Your task to perform on an android device: Open calendar and show me the second week of next month Image 0: 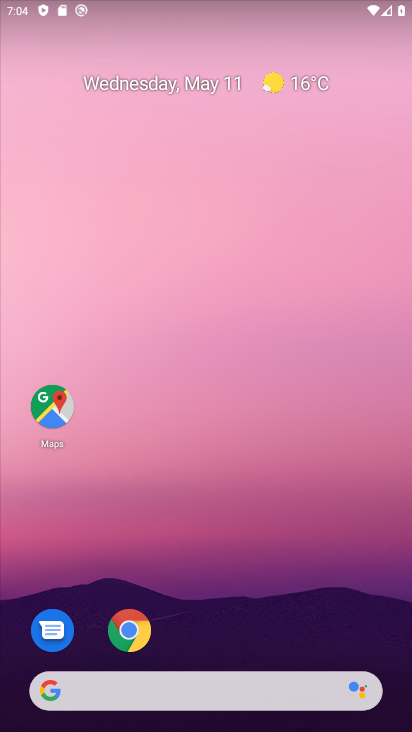
Step 0: drag from (287, 601) to (191, 1)
Your task to perform on an android device: Open calendar and show me the second week of next month Image 1: 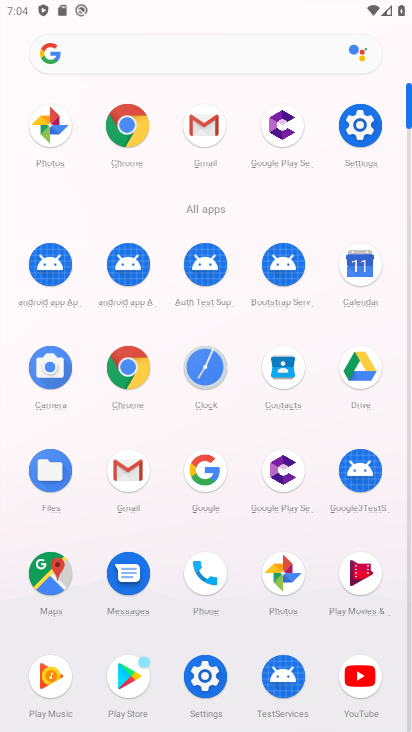
Step 1: click (367, 268)
Your task to perform on an android device: Open calendar and show me the second week of next month Image 2: 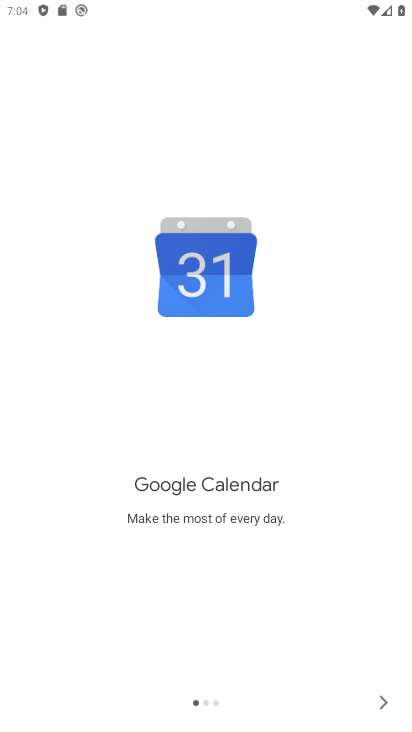
Step 2: click (388, 699)
Your task to perform on an android device: Open calendar and show me the second week of next month Image 3: 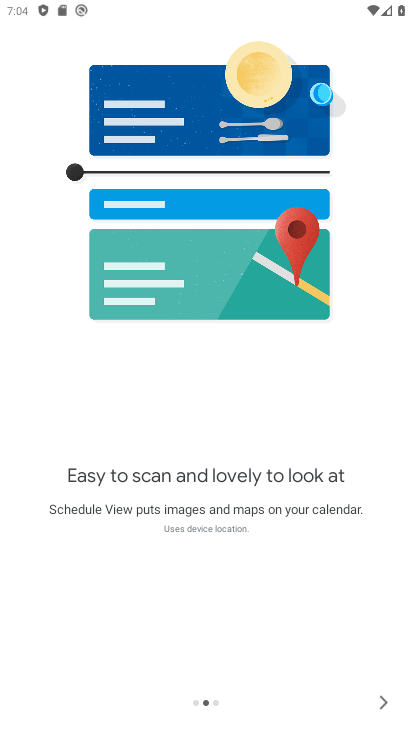
Step 3: click (388, 699)
Your task to perform on an android device: Open calendar and show me the second week of next month Image 4: 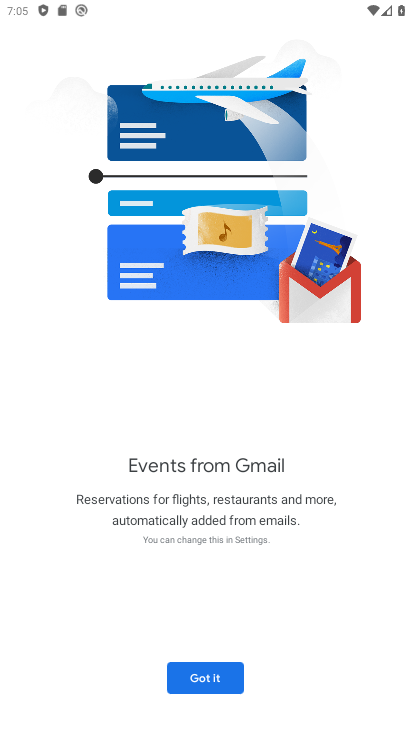
Step 4: click (180, 672)
Your task to perform on an android device: Open calendar and show me the second week of next month Image 5: 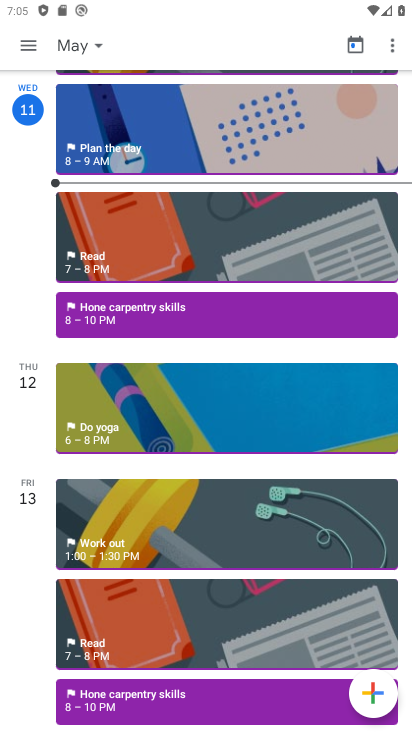
Step 5: click (64, 48)
Your task to perform on an android device: Open calendar and show me the second week of next month Image 6: 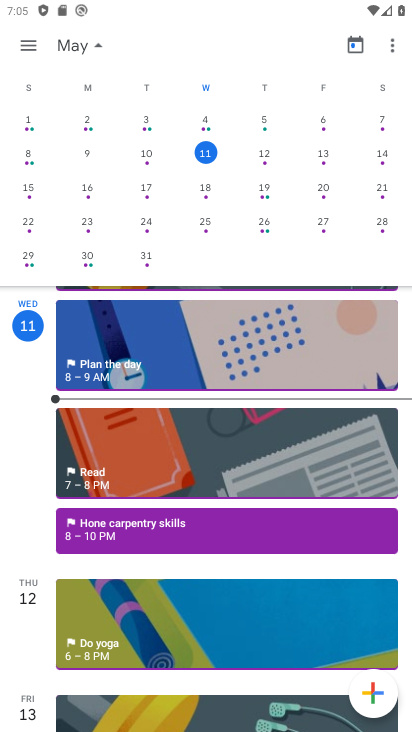
Step 6: drag from (329, 200) to (6, 163)
Your task to perform on an android device: Open calendar and show me the second week of next month Image 7: 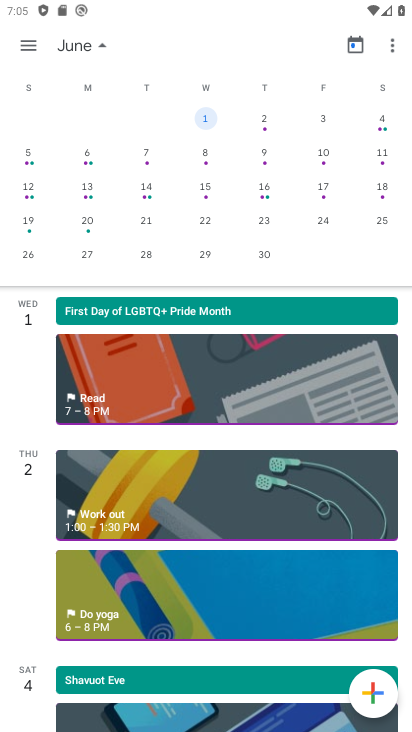
Step 7: click (150, 192)
Your task to perform on an android device: Open calendar and show me the second week of next month Image 8: 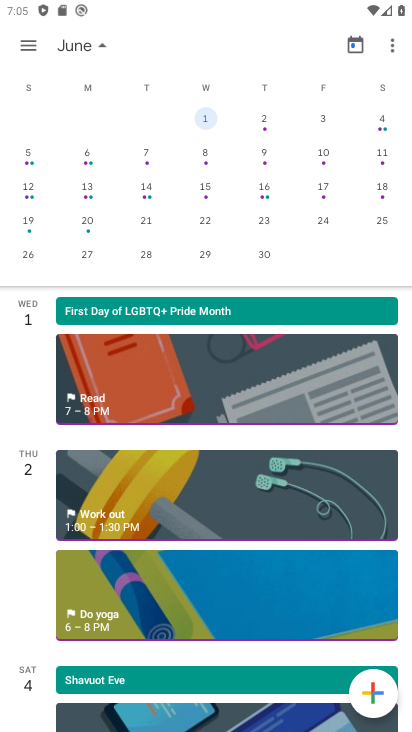
Step 8: click (146, 188)
Your task to perform on an android device: Open calendar and show me the second week of next month Image 9: 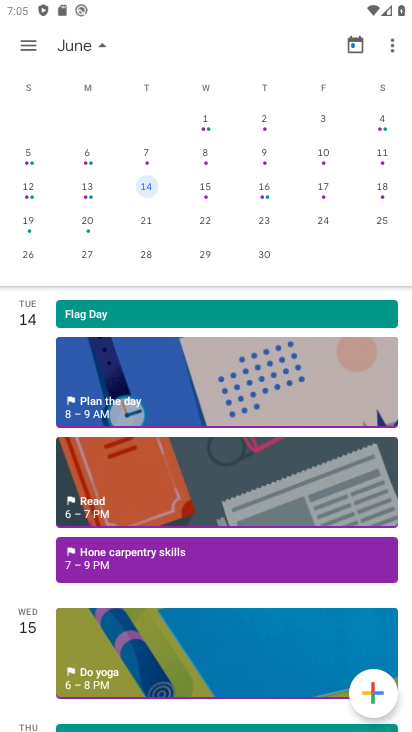
Step 9: task complete